Your task to perform on an android device: turn notification dots on Image 0: 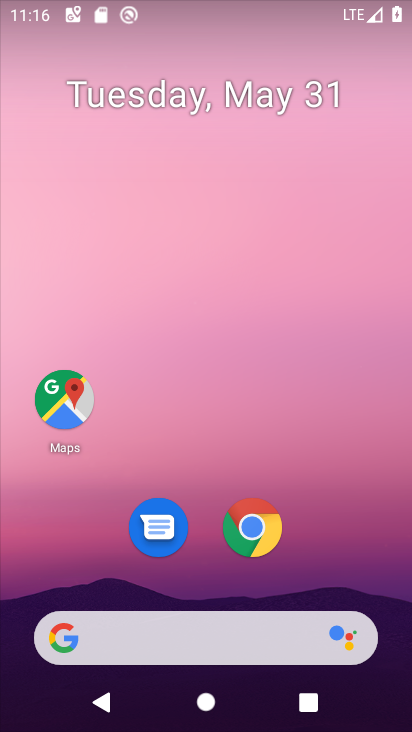
Step 0: drag from (321, 578) to (306, 22)
Your task to perform on an android device: turn notification dots on Image 1: 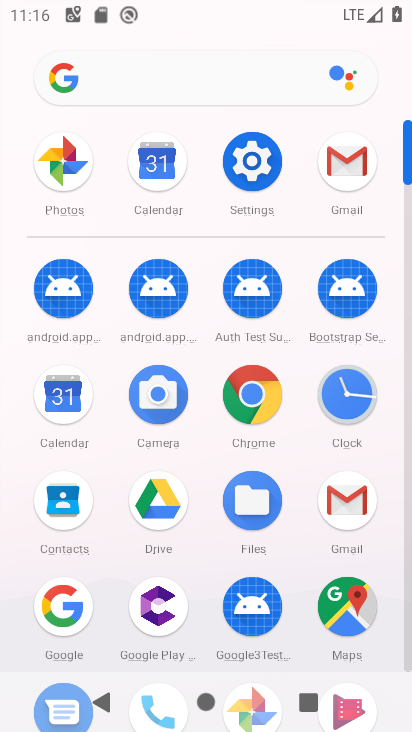
Step 1: click (252, 168)
Your task to perform on an android device: turn notification dots on Image 2: 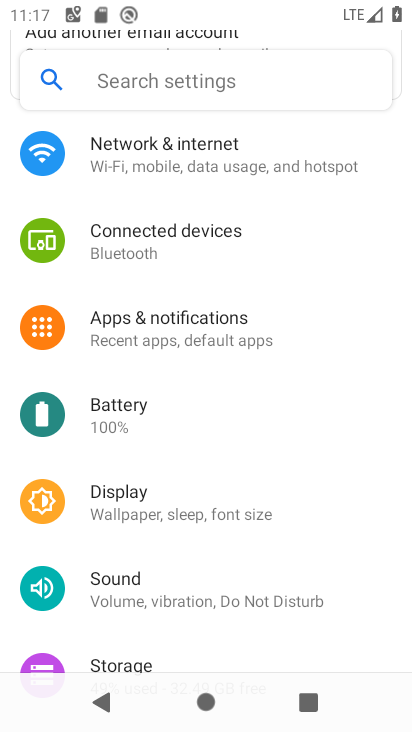
Step 2: click (160, 324)
Your task to perform on an android device: turn notification dots on Image 3: 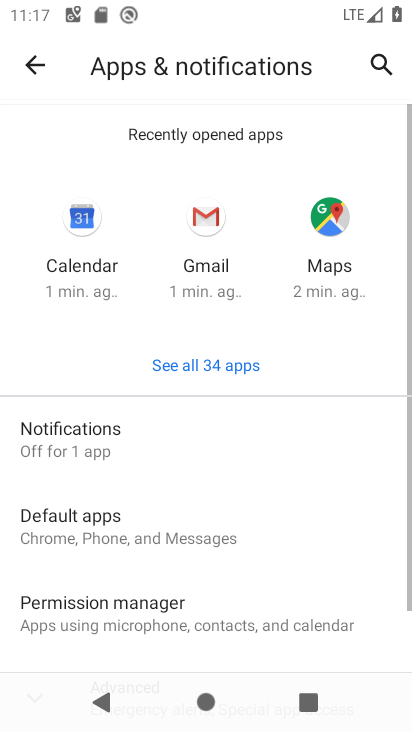
Step 3: click (67, 452)
Your task to perform on an android device: turn notification dots on Image 4: 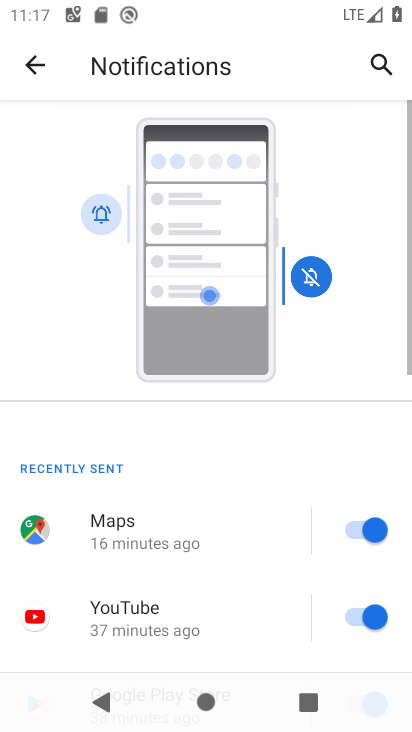
Step 4: drag from (206, 584) to (215, 128)
Your task to perform on an android device: turn notification dots on Image 5: 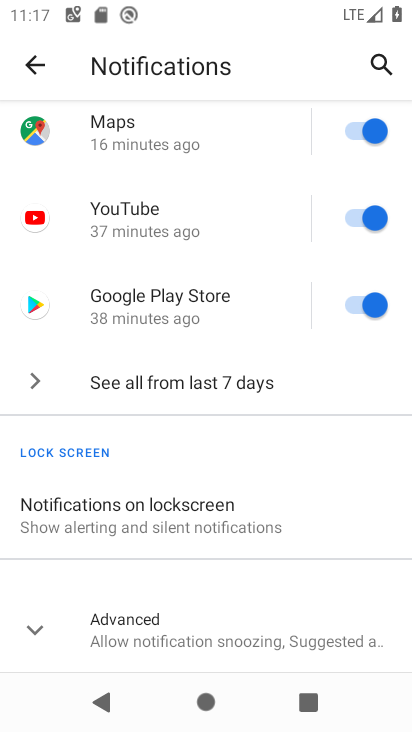
Step 5: drag from (190, 523) to (185, 299)
Your task to perform on an android device: turn notification dots on Image 6: 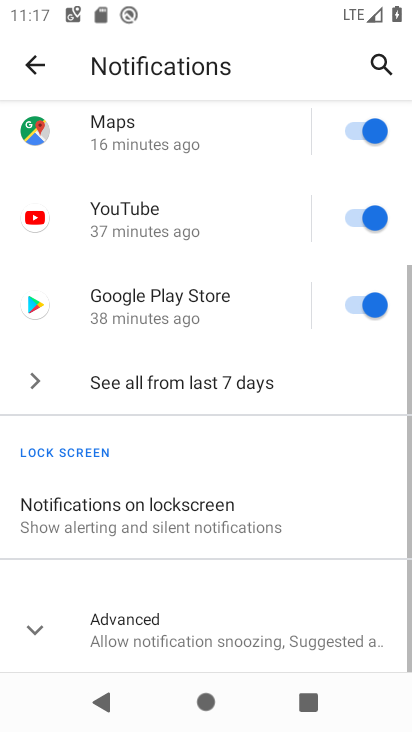
Step 6: click (30, 639)
Your task to perform on an android device: turn notification dots on Image 7: 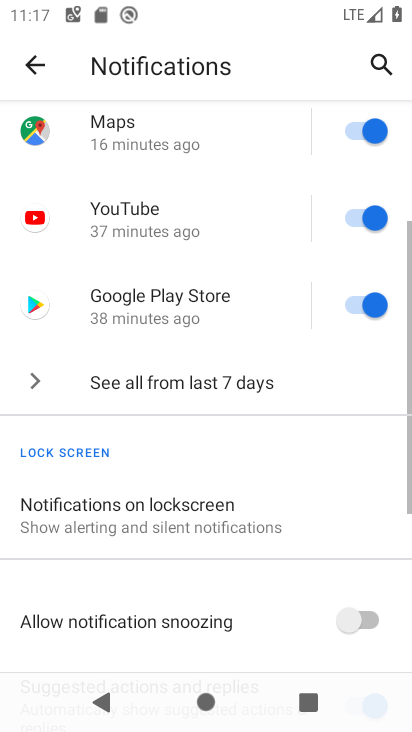
Step 7: task complete